Your task to perform on an android device: Open Yahoo.com Image 0: 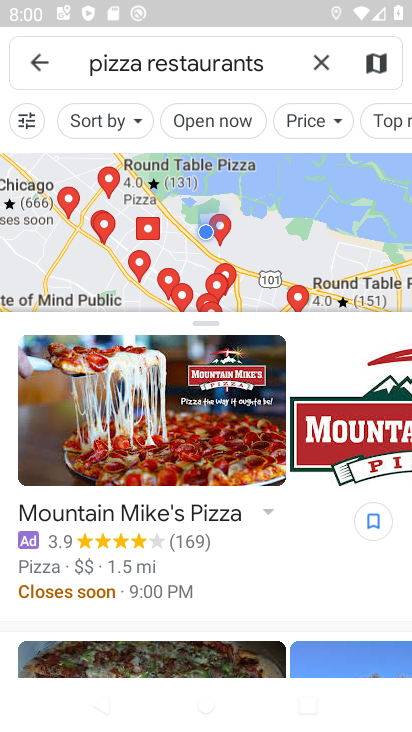
Step 0: press home button
Your task to perform on an android device: Open Yahoo.com Image 1: 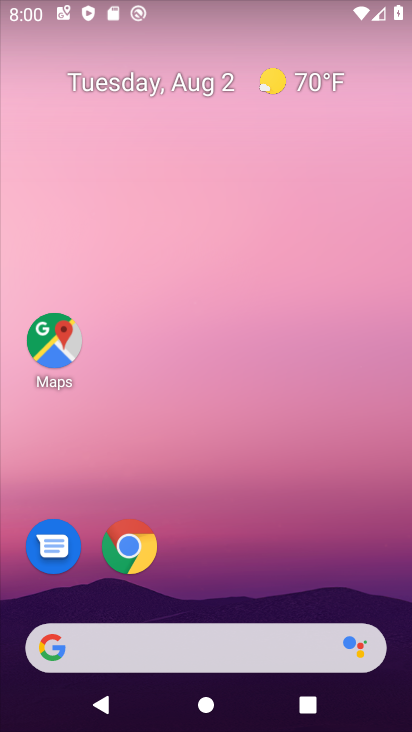
Step 1: click (133, 555)
Your task to perform on an android device: Open Yahoo.com Image 2: 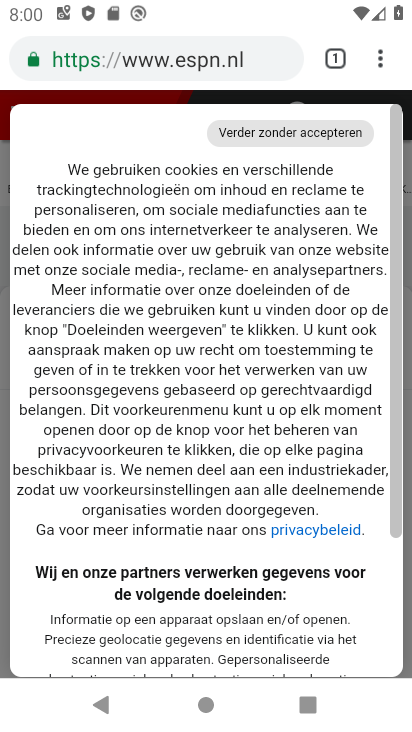
Step 2: click (194, 62)
Your task to perform on an android device: Open Yahoo.com Image 3: 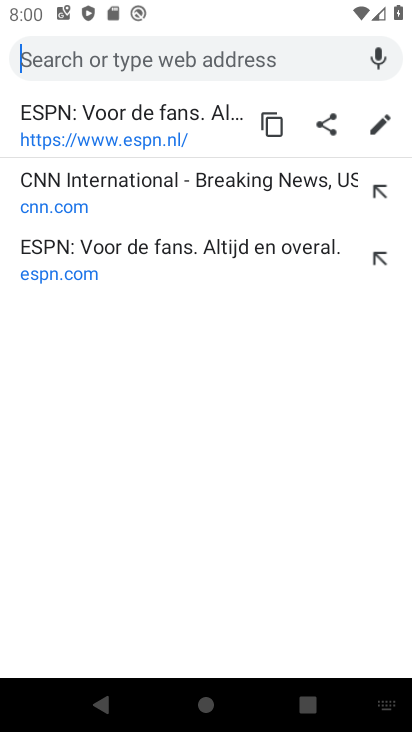
Step 3: type "yahoo.com"
Your task to perform on an android device: Open Yahoo.com Image 4: 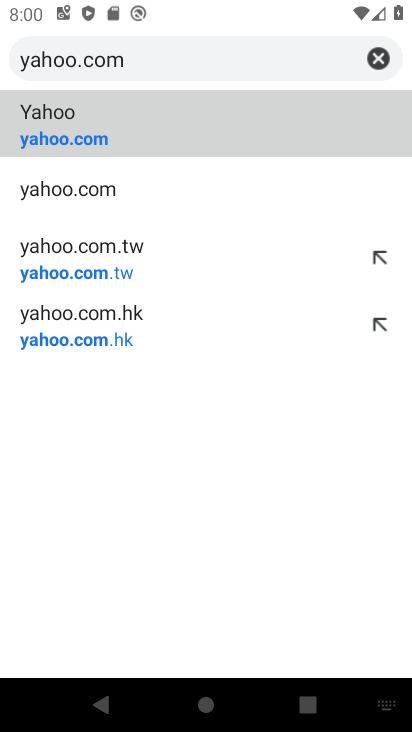
Step 4: click (117, 133)
Your task to perform on an android device: Open Yahoo.com Image 5: 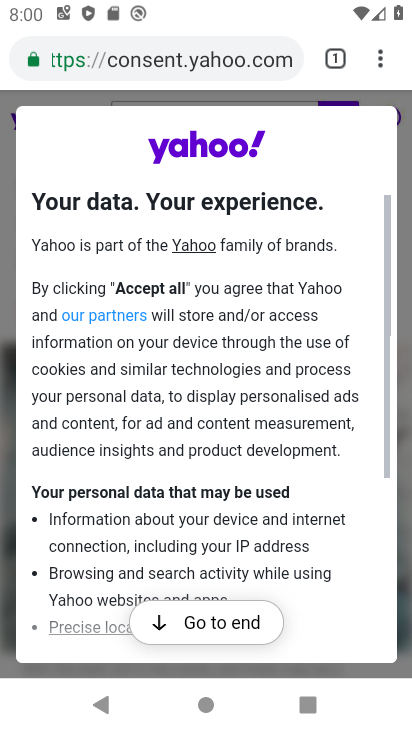
Step 5: click (205, 615)
Your task to perform on an android device: Open Yahoo.com Image 6: 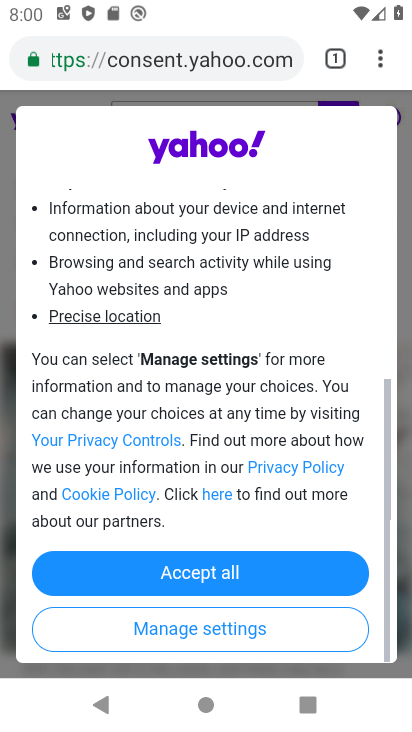
Step 6: task complete